Your task to perform on an android device: open sync settings in chrome Image 0: 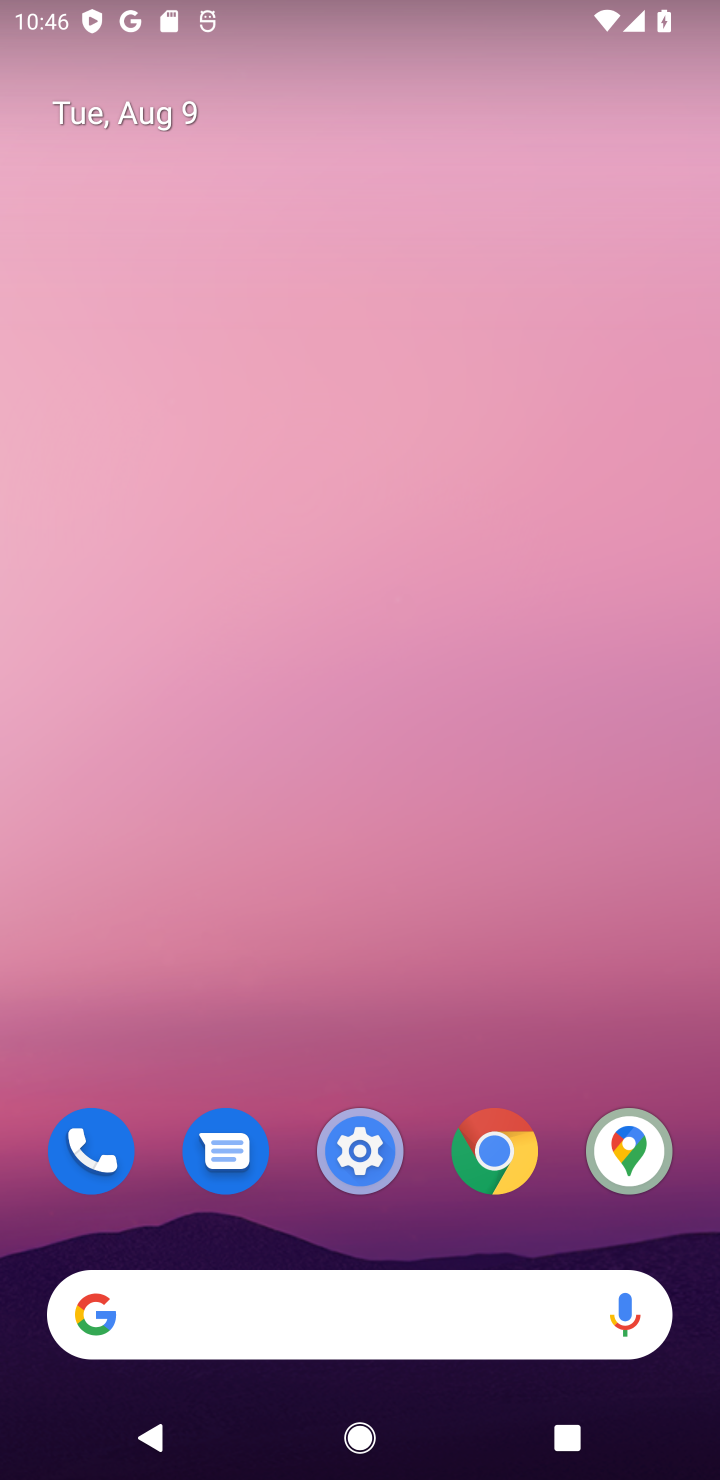
Step 0: click (487, 1149)
Your task to perform on an android device: open sync settings in chrome Image 1: 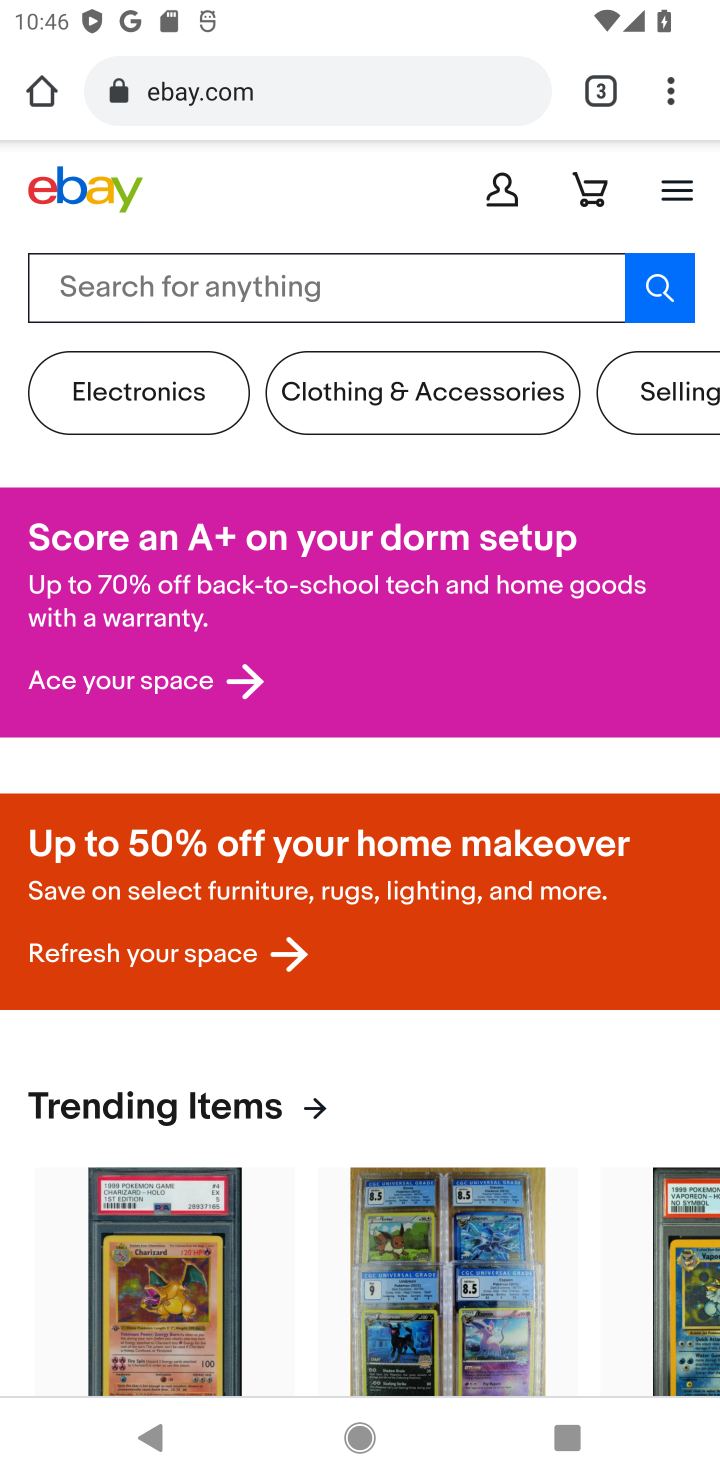
Step 1: click (672, 102)
Your task to perform on an android device: open sync settings in chrome Image 2: 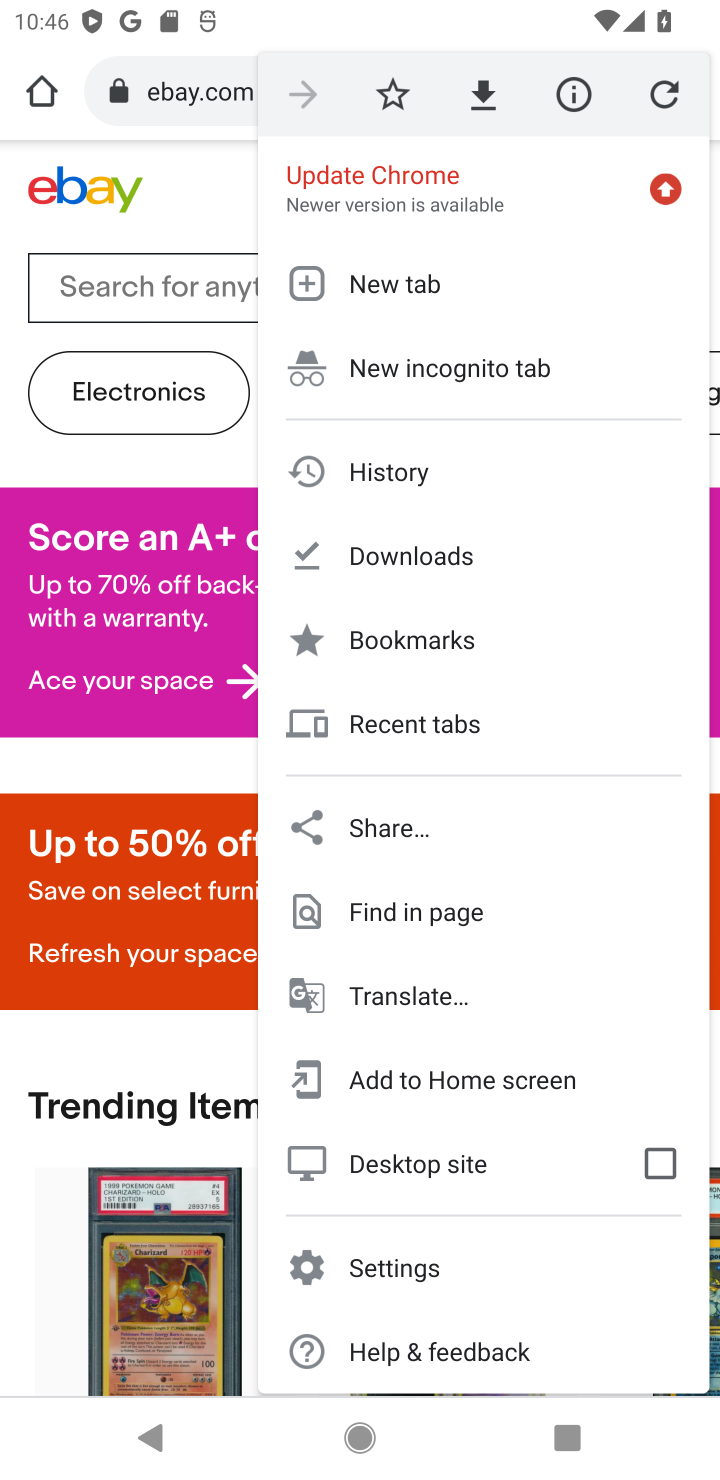
Step 2: click (422, 1272)
Your task to perform on an android device: open sync settings in chrome Image 3: 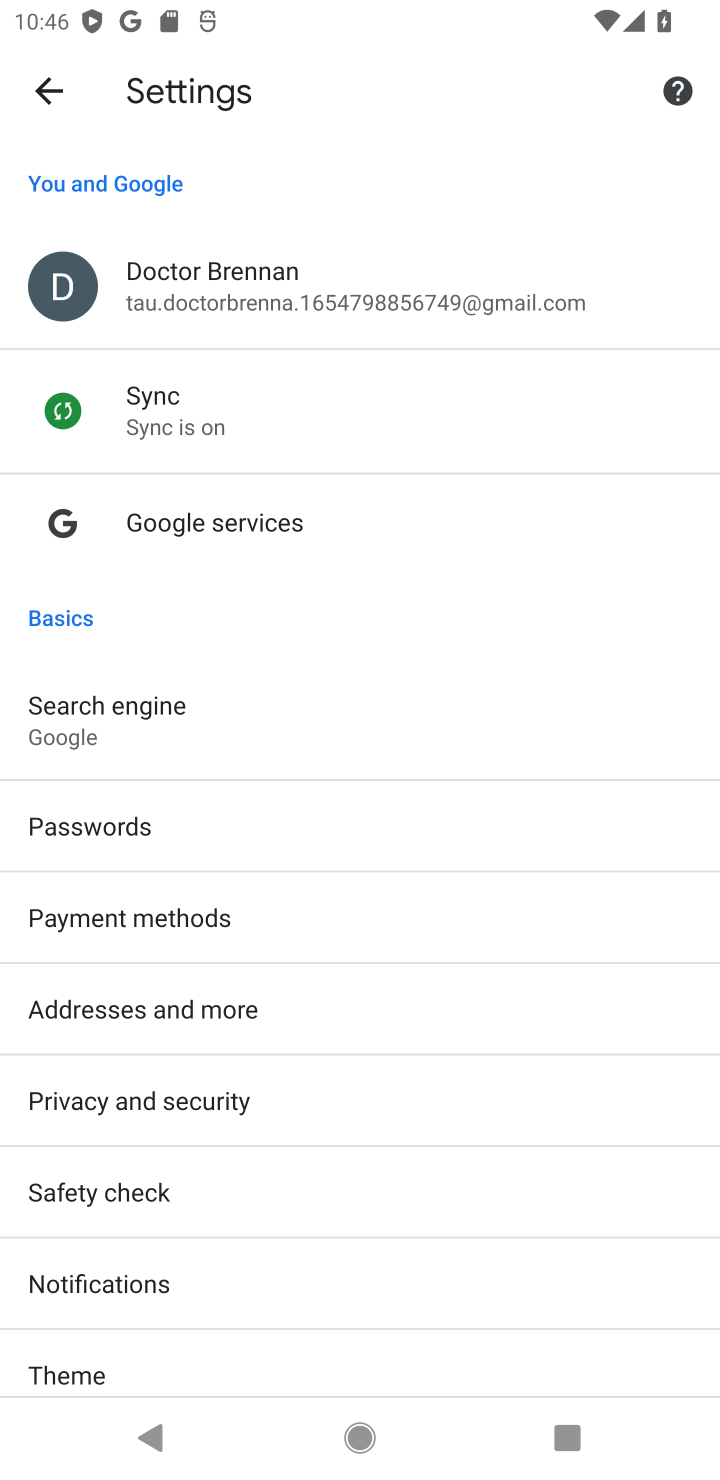
Step 3: click (181, 412)
Your task to perform on an android device: open sync settings in chrome Image 4: 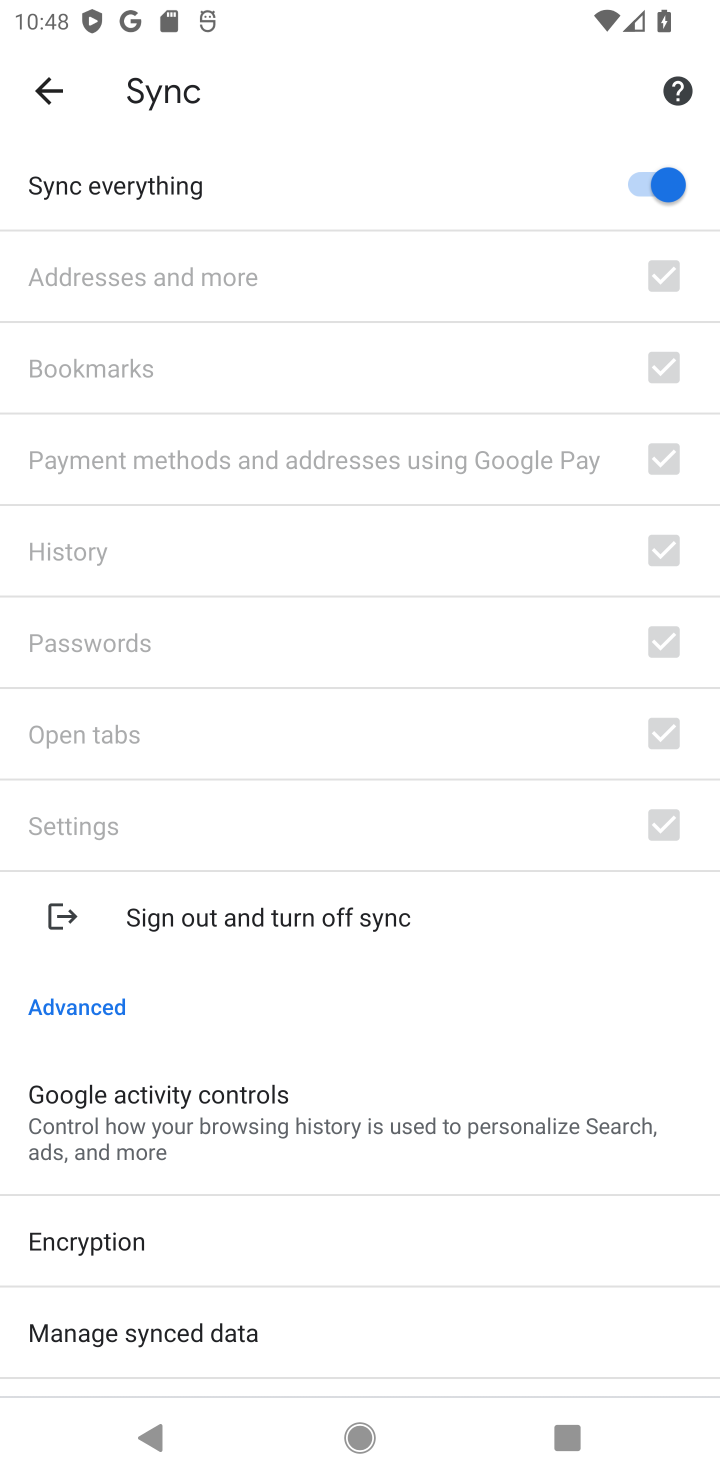
Step 4: task complete